Your task to perform on an android device: Add "usb-c to usb-b" to the cart on costco.com, then select checkout. Image 0: 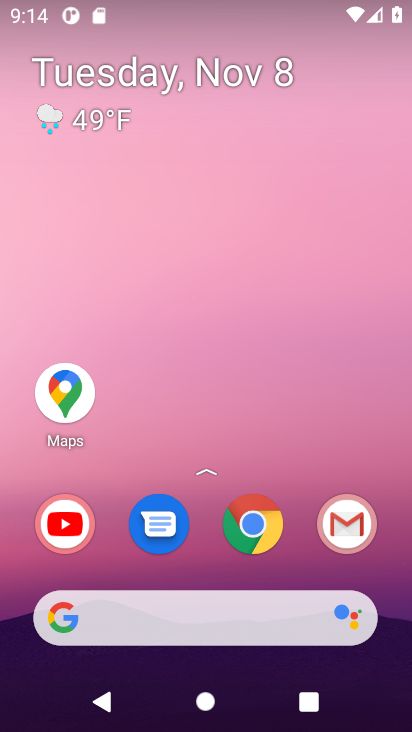
Step 0: click (263, 526)
Your task to perform on an android device: Add "usb-c to usb-b" to the cart on costco.com, then select checkout. Image 1: 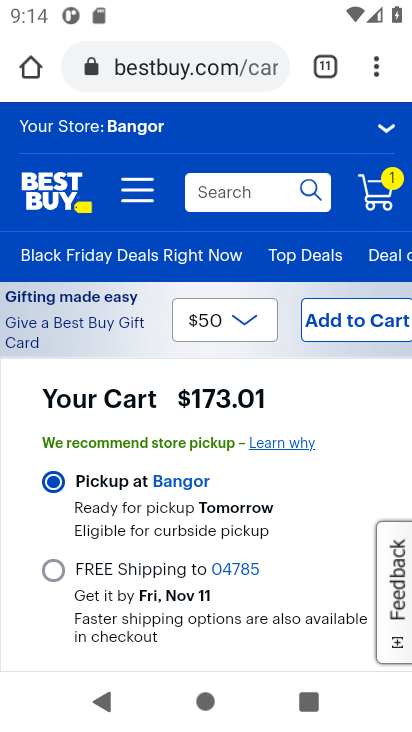
Step 1: click (177, 65)
Your task to perform on an android device: Add "usb-c to usb-b" to the cart on costco.com, then select checkout. Image 2: 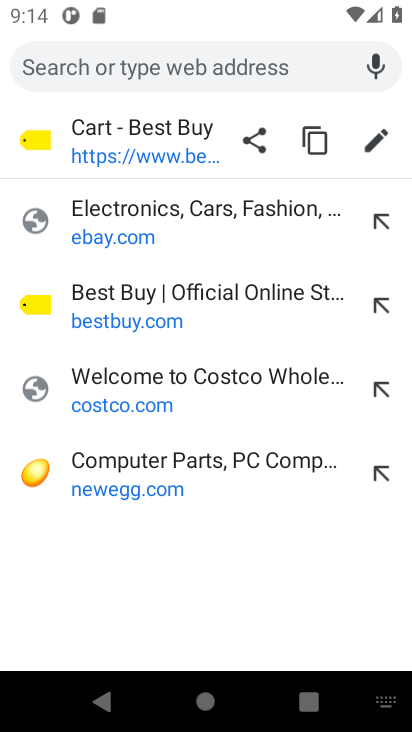
Step 2: click (125, 404)
Your task to perform on an android device: Add "usb-c to usb-b" to the cart on costco.com, then select checkout. Image 3: 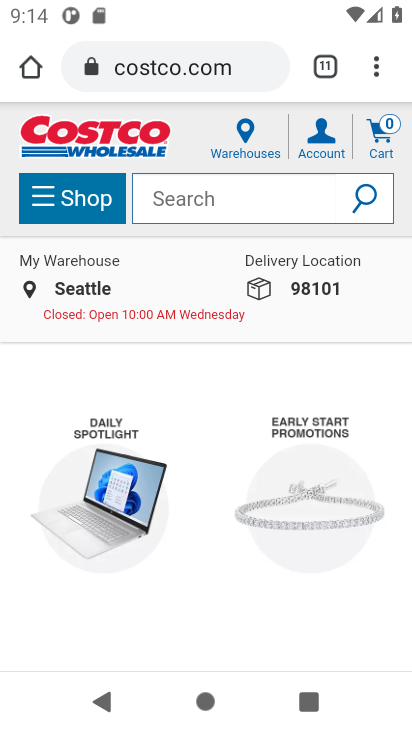
Step 3: click (162, 215)
Your task to perform on an android device: Add "usb-c to usb-b" to the cart on costco.com, then select checkout. Image 4: 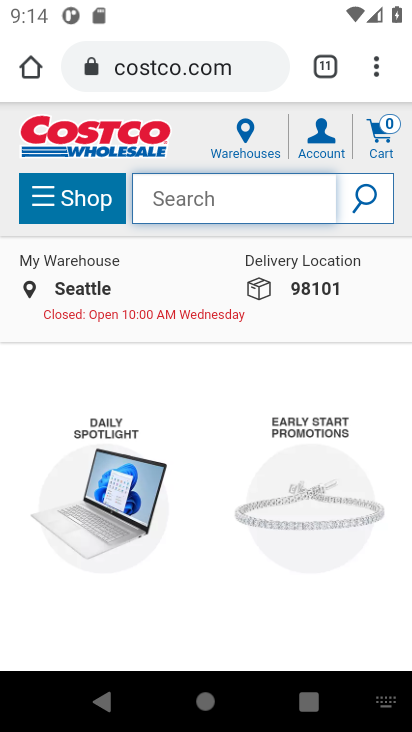
Step 4: type "usb-c to usb-b"
Your task to perform on an android device: Add "usb-c to usb-b" to the cart on costco.com, then select checkout. Image 5: 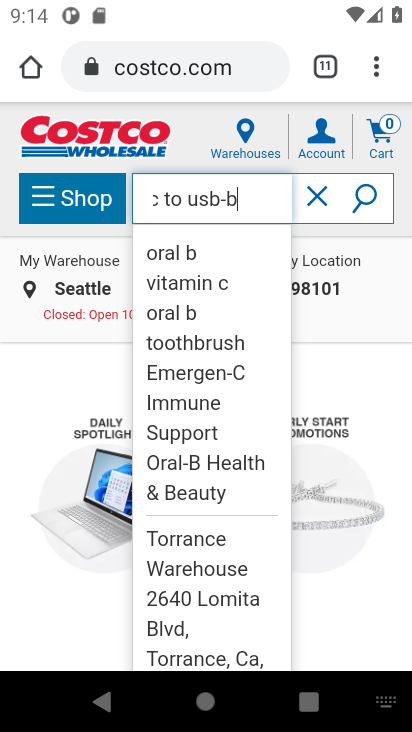
Step 5: click (357, 196)
Your task to perform on an android device: Add "usb-c to usb-b" to the cart on costco.com, then select checkout. Image 6: 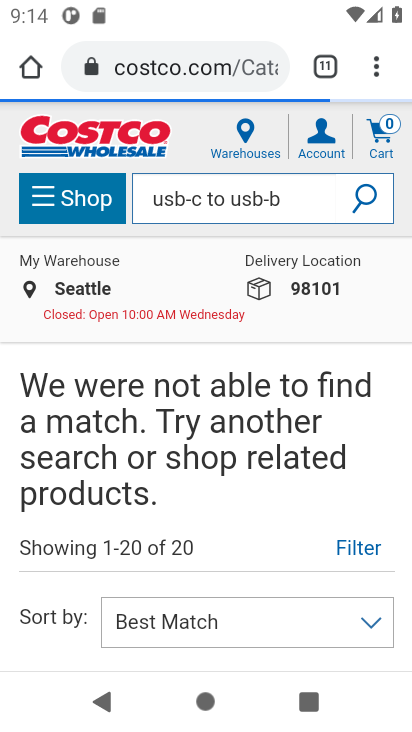
Step 6: task complete